Your task to perform on an android device: turn off sleep mode Image 0: 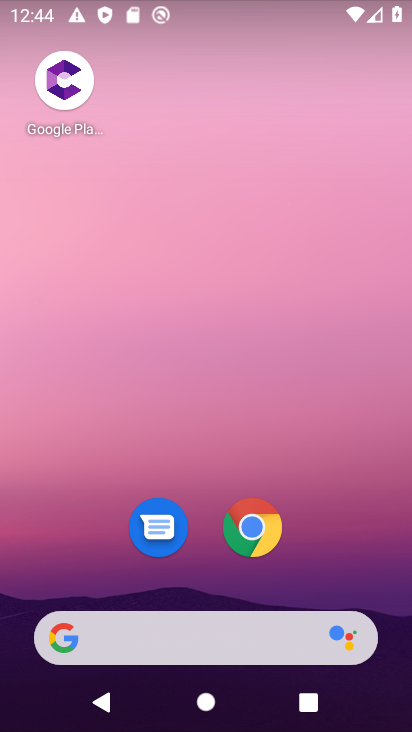
Step 0: drag from (218, 469) to (259, 23)
Your task to perform on an android device: turn off sleep mode Image 1: 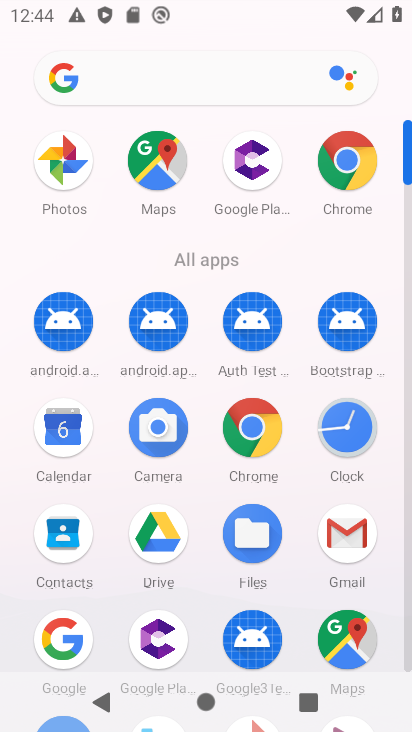
Step 1: drag from (211, 272) to (194, 24)
Your task to perform on an android device: turn off sleep mode Image 2: 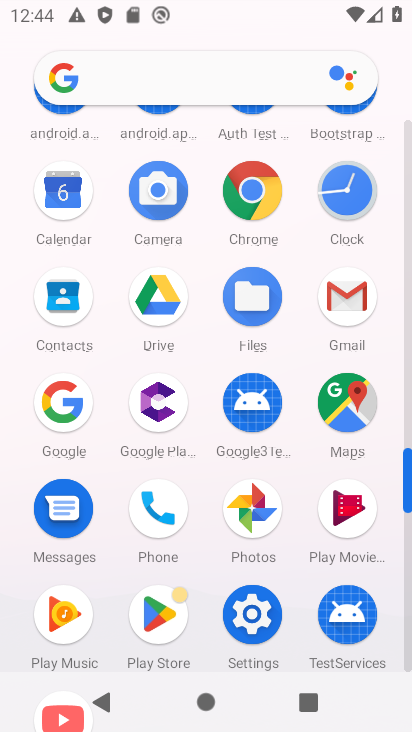
Step 2: click (260, 624)
Your task to perform on an android device: turn off sleep mode Image 3: 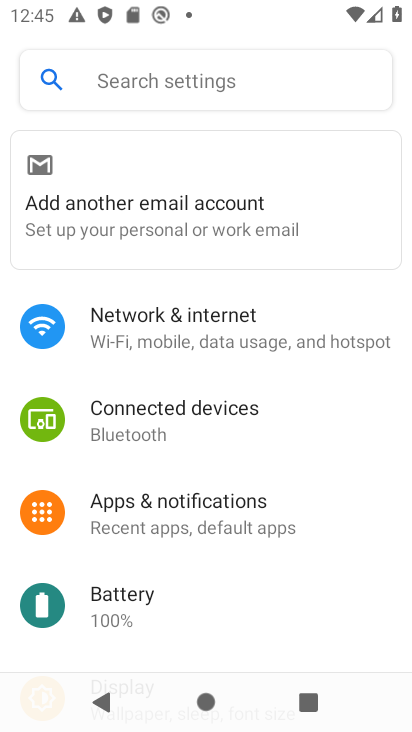
Step 3: task complete